Your task to perform on an android device: Open Yahoo.com Image 0: 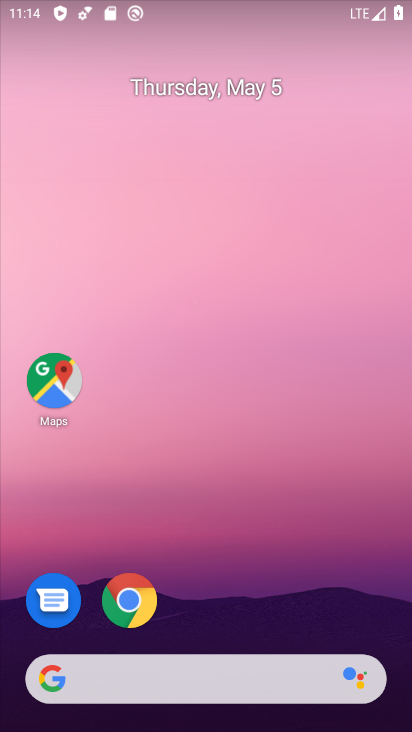
Step 0: drag from (384, 601) to (302, 111)
Your task to perform on an android device: Open Yahoo.com Image 1: 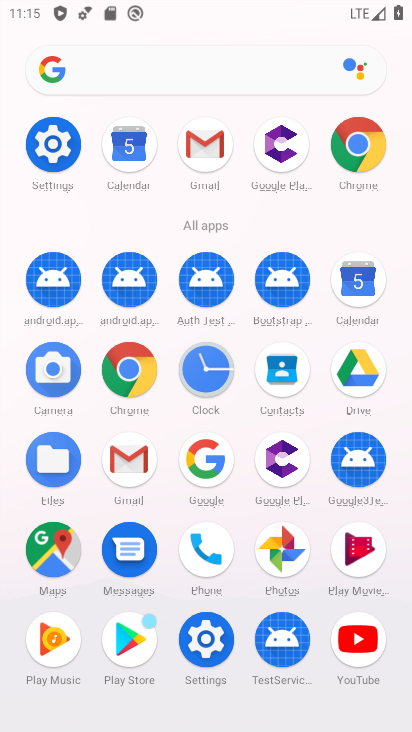
Step 1: click (132, 387)
Your task to perform on an android device: Open Yahoo.com Image 2: 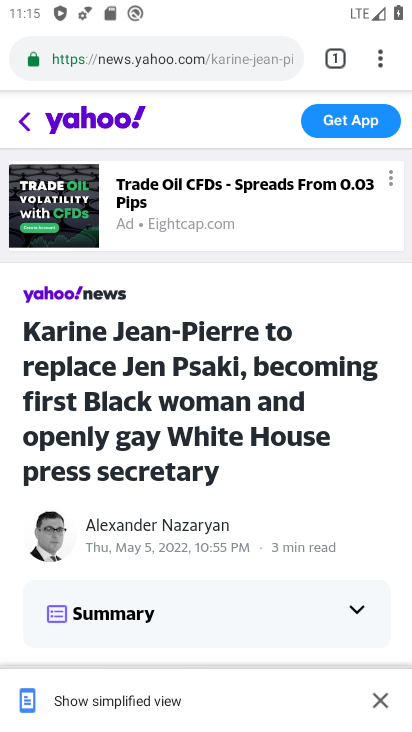
Step 2: press back button
Your task to perform on an android device: Open Yahoo.com Image 3: 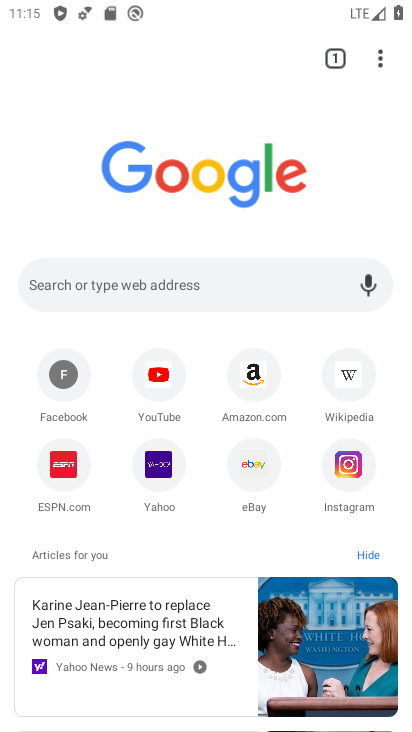
Step 3: click (143, 465)
Your task to perform on an android device: Open Yahoo.com Image 4: 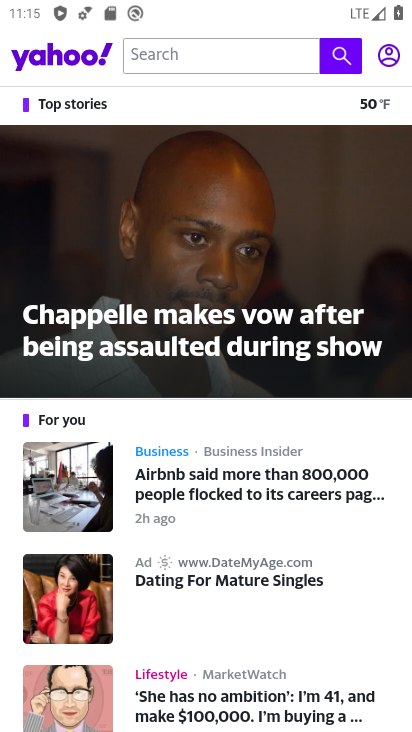
Step 4: task complete